Your task to perform on an android device: open a bookmark in the chrome app Image 0: 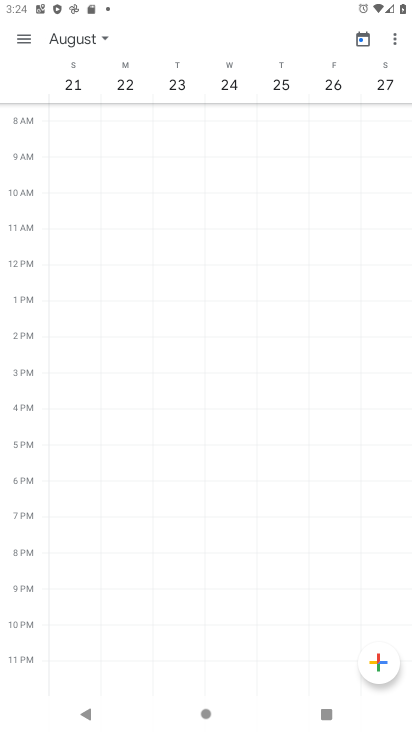
Step 0: press home button
Your task to perform on an android device: open a bookmark in the chrome app Image 1: 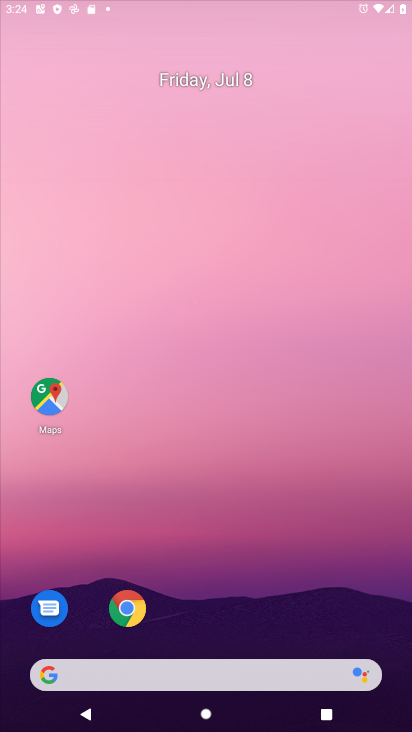
Step 1: drag from (263, 691) to (237, 94)
Your task to perform on an android device: open a bookmark in the chrome app Image 2: 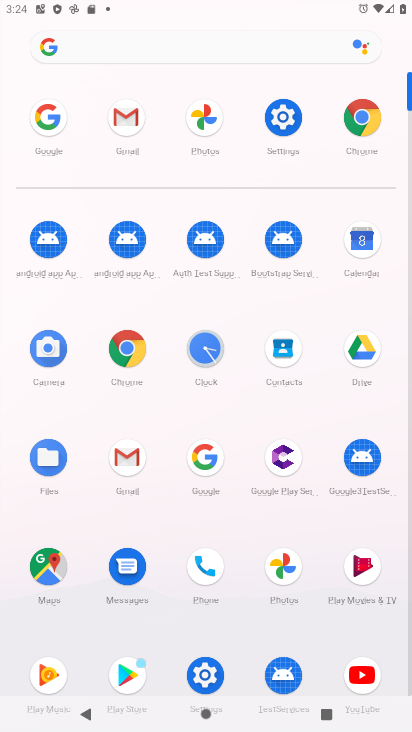
Step 2: click (139, 354)
Your task to perform on an android device: open a bookmark in the chrome app Image 3: 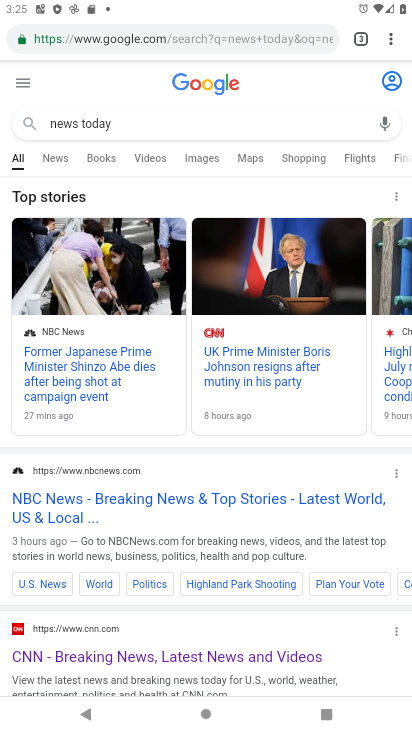
Step 3: task complete